Your task to perform on an android device: Go to internet settings Image 0: 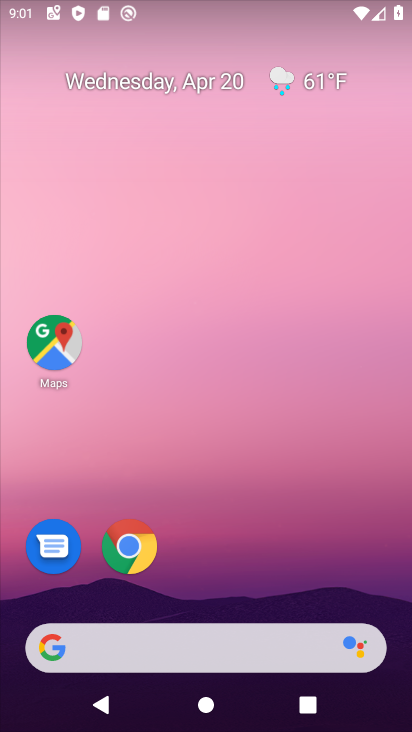
Step 0: drag from (213, 714) to (213, 140)
Your task to perform on an android device: Go to internet settings Image 1: 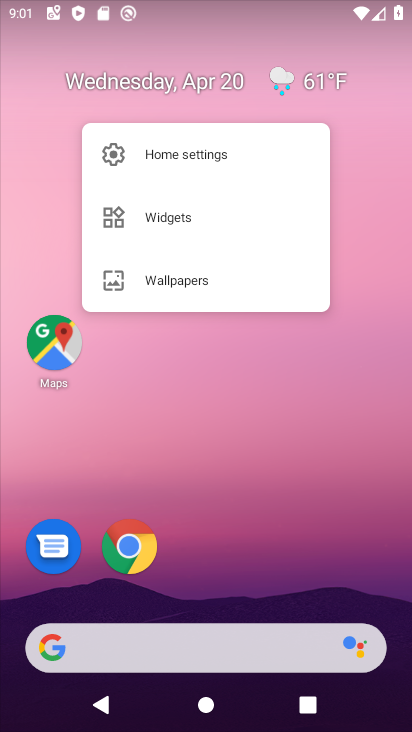
Step 1: click (237, 354)
Your task to perform on an android device: Go to internet settings Image 2: 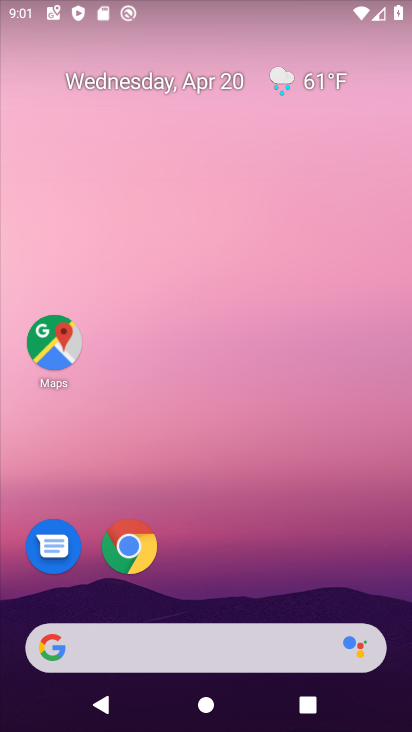
Step 2: drag from (223, 587) to (223, 62)
Your task to perform on an android device: Go to internet settings Image 3: 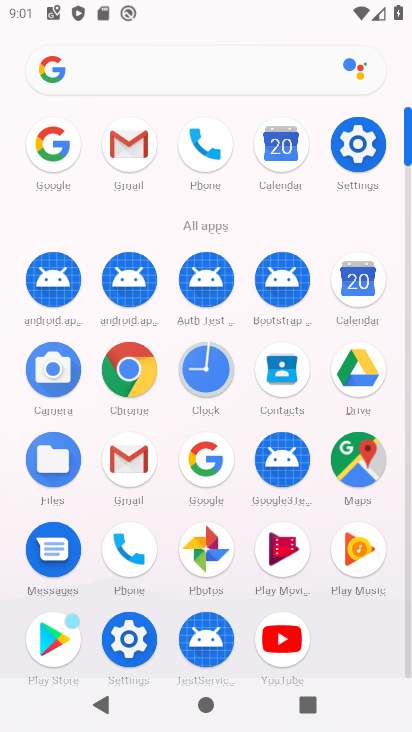
Step 3: click (352, 150)
Your task to perform on an android device: Go to internet settings Image 4: 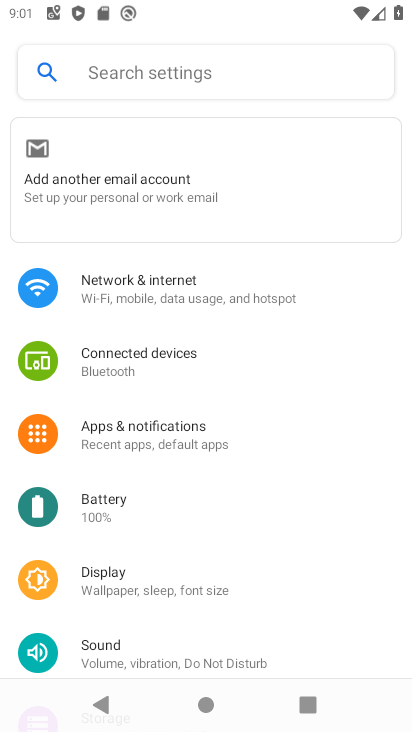
Step 4: click (171, 297)
Your task to perform on an android device: Go to internet settings Image 5: 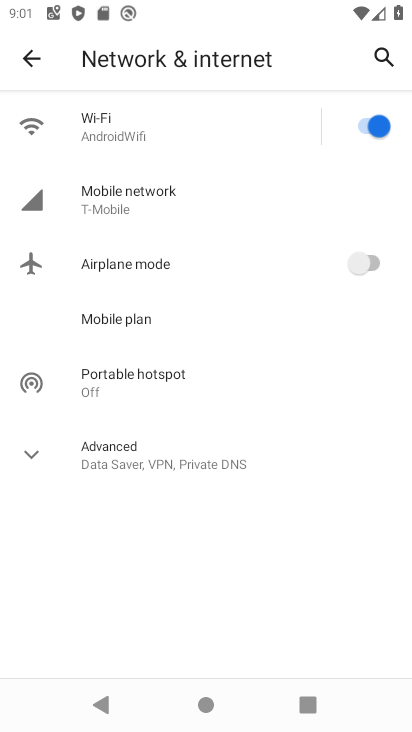
Step 5: click (107, 192)
Your task to perform on an android device: Go to internet settings Image 6: 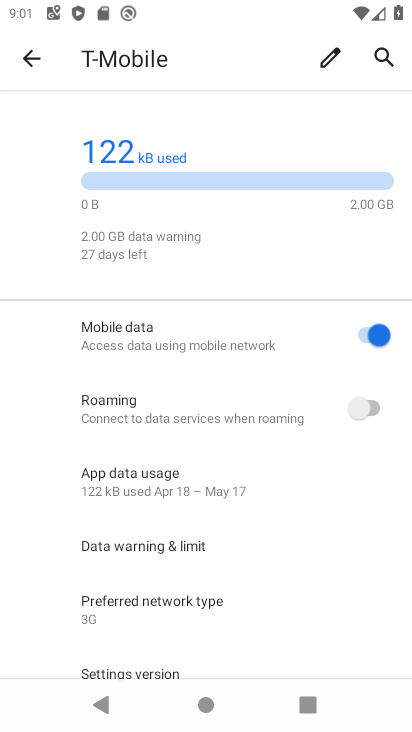
Step 6: task complete